Your task to perform on an android device: turn on wifi Image 0: 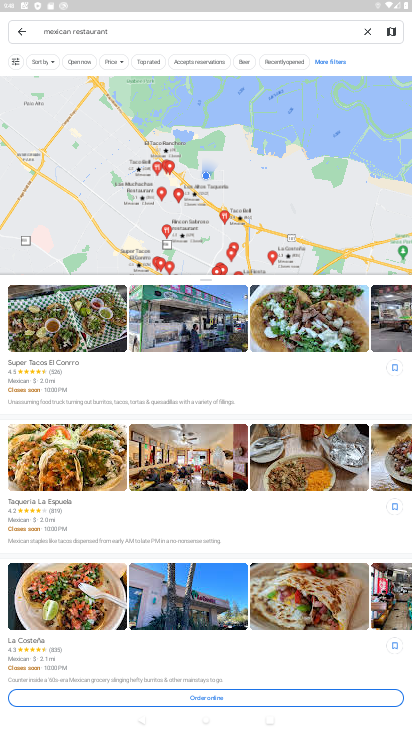
Step 0: press home button
Your task to perform on an android device: turn on wifi Image 1: 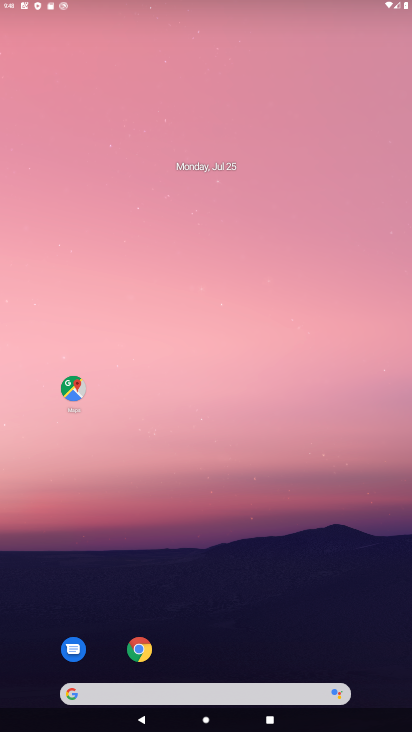
Step 1: drag from (263, 588) to (165, 52)
Your task to perform on an android device: turn on wifi Image 2: 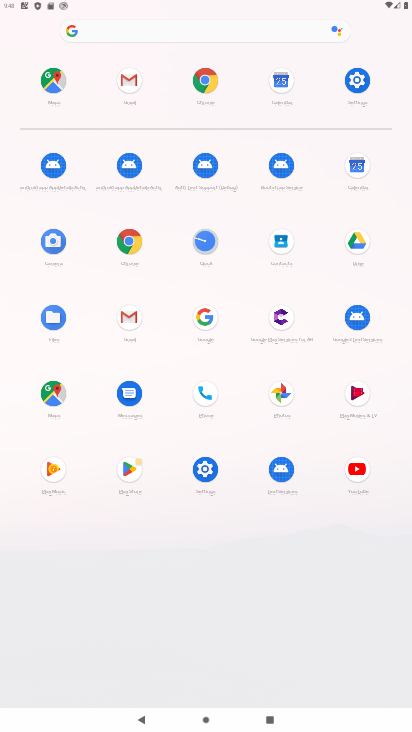
Step 2: click (351, 73)
Your task to perform on an android device: turn on wifi Image 3: 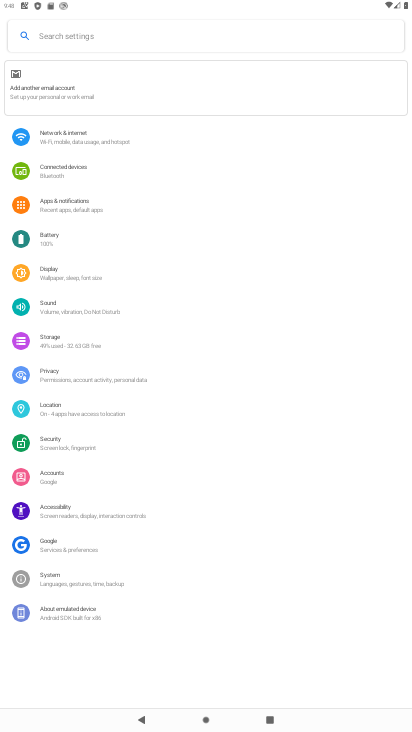
Step 3: click (47, 139)
Your task to perform on an android device: turn on wifi Image 4: 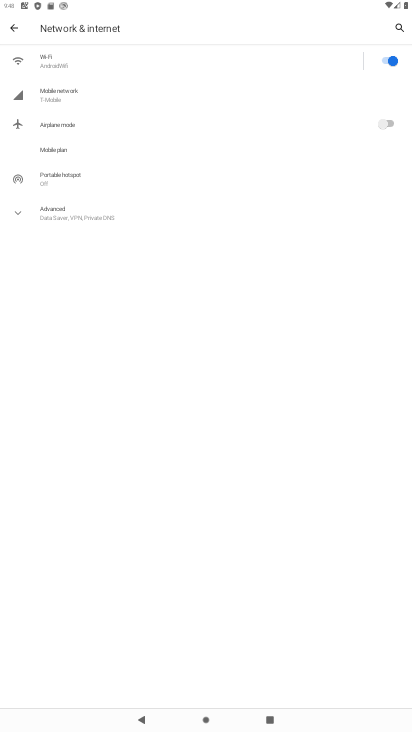
Step 4: task complete